Your task to perform on an android device: Go to Yahoo.com Image 0: 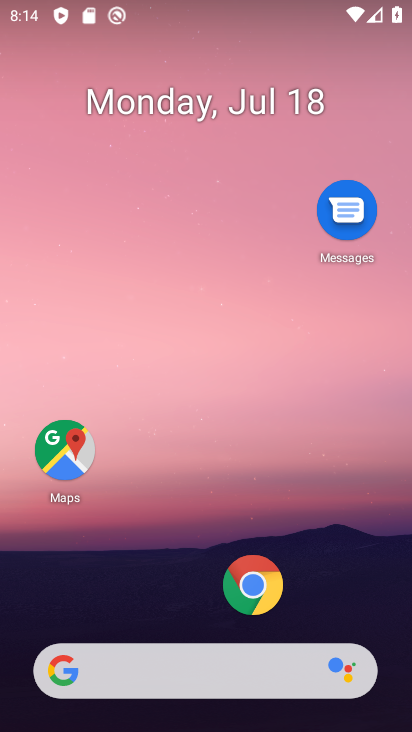
Step 0: click (250, 588)
Your task to perform on an android device: Go to Yahoo.com Image 1: 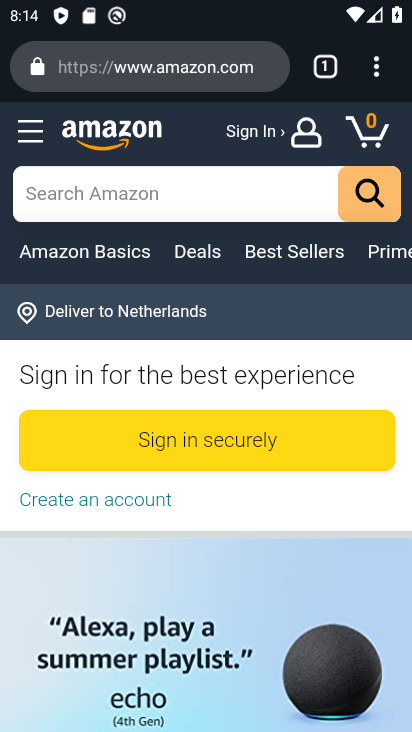
Step 1: drag from (372, 76) to (148, 140)
Your task to perform on an android device: Go to Yahoo.com Image 2: 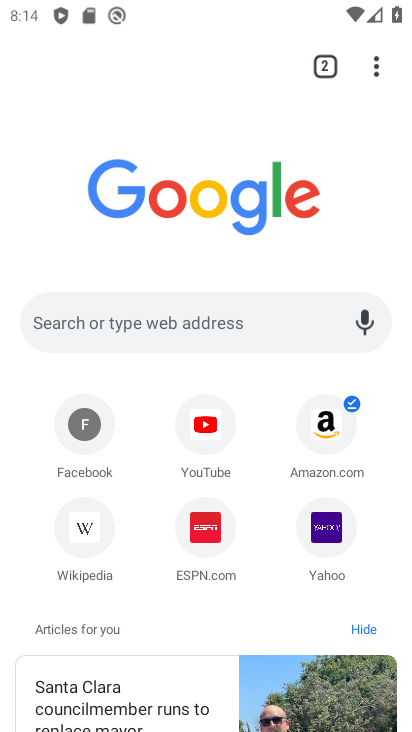
Step 2: click (329, 531)
Your task to perform on an android device: Go to Yahoo.com Image 3: 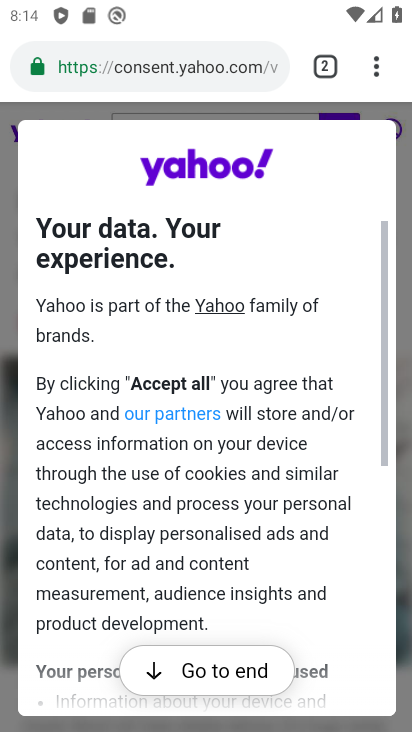
Step 3: click (198, 664)
Your task to perform on an android device: Go to Yahoo.com Image 4: 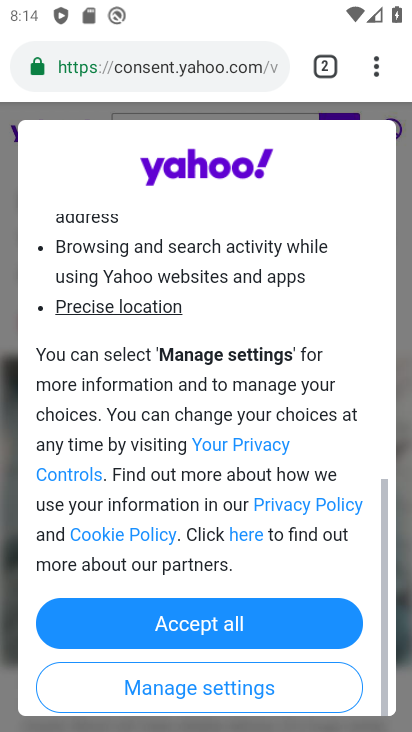
Step 4: click (188, 630)
Your task to perform on an android device: Go to Yahoo.com Image 5: 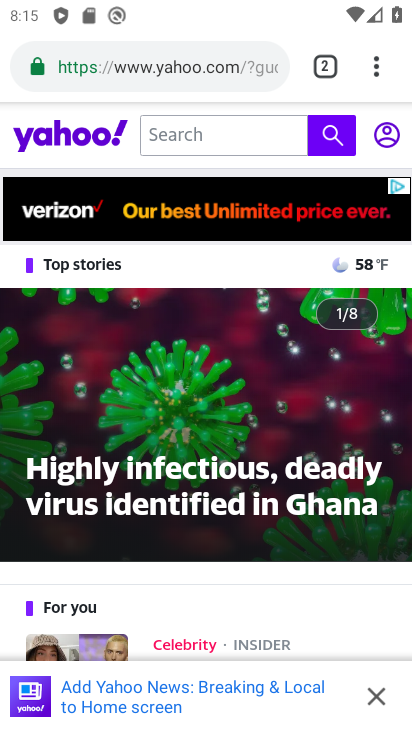
Step 5: task complete